Your task to perform on an android device: Open accessibility settings Image 0: 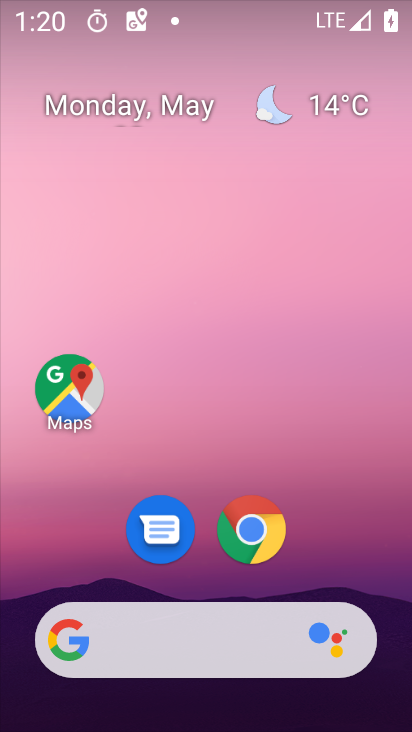
Step 0: drag from (388, 586) to (382, 234)
Your task to perform on an android device: Open accessibility settings Image 1: 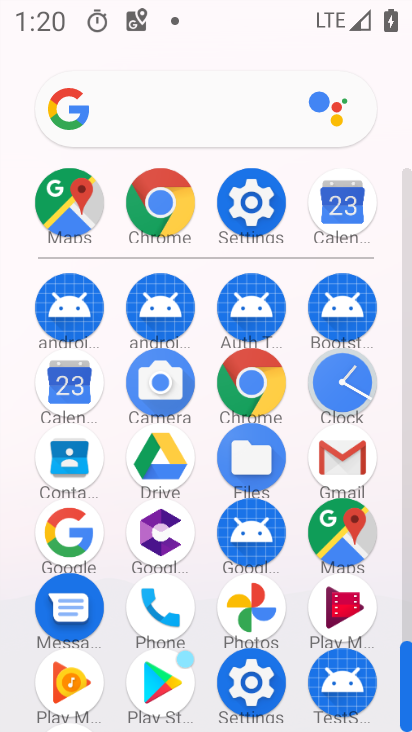
Step 1: click (249, 206)
Your task to perform on an android device: Open accessibility settings Image 2: 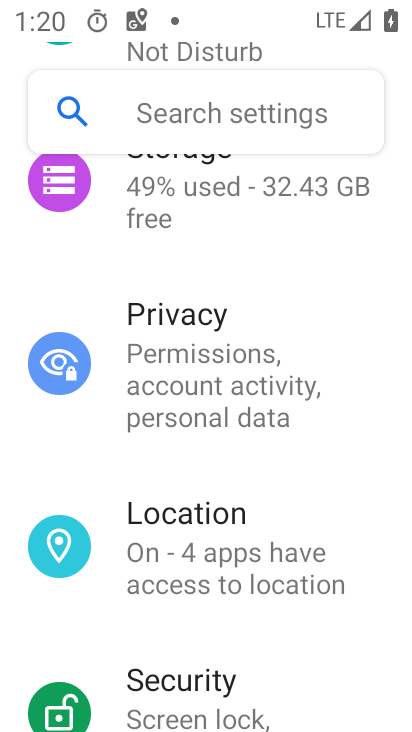
Step 2: drag from (359, 624) to (362, 481)
Your task to perform on an android device: Open accessibility settings Image 3: 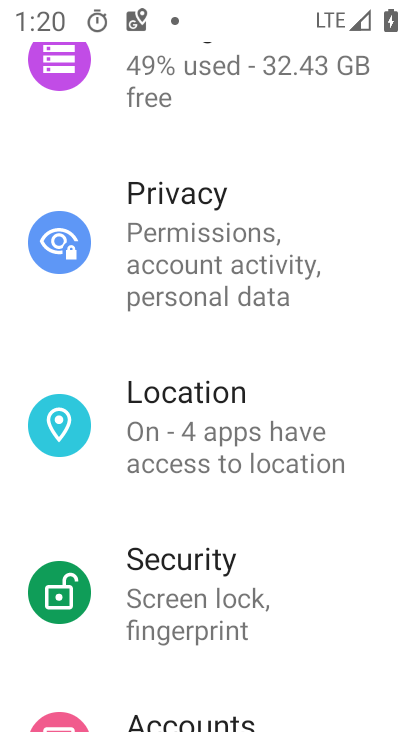
Step 3: drag from (353, 621) to (341, 409)
Your task to perform on an android device: Open accessibility settings Image 4: 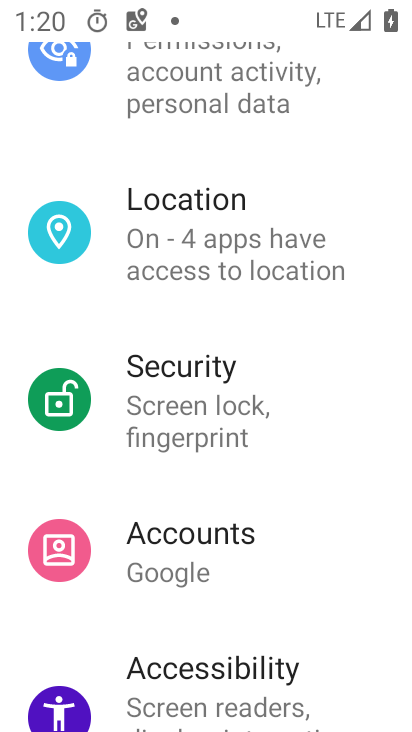
Step 4: drag from (355, 568) to (332, 444)
Your task to perform on an android device: Open accessibility settings Image 5: 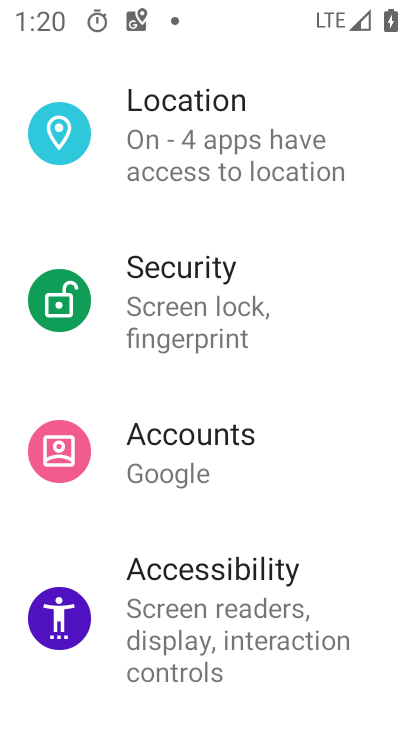
Step 5: drag from (317, 547) to (314, 392)
Your task to perform on an android device: Open accessibility settings Image 6: 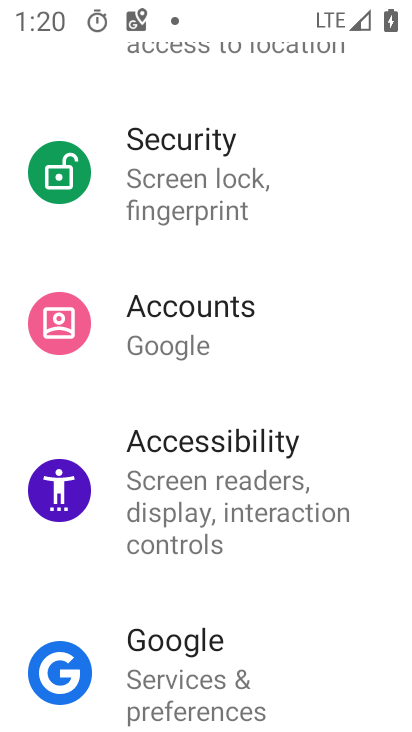
Step 6: drag from (332, 636) to (336, 390)
Your task to perform on an android device: Open accessibility settings Image 7: 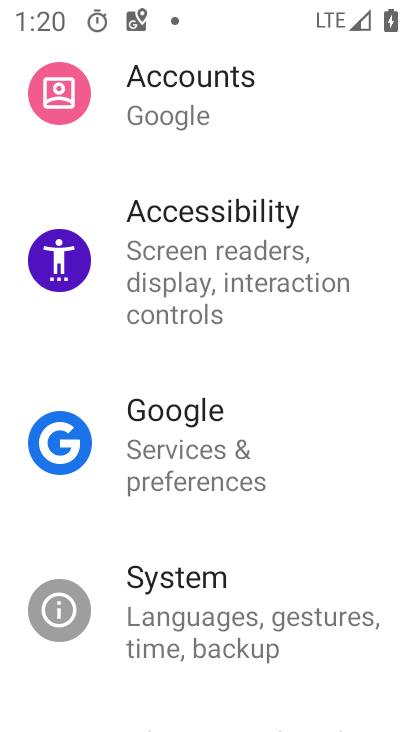
Step 7: drag from (322, 500) to (341, 346)
Your task to perform on an android device: Open accessibility settings Image 8: 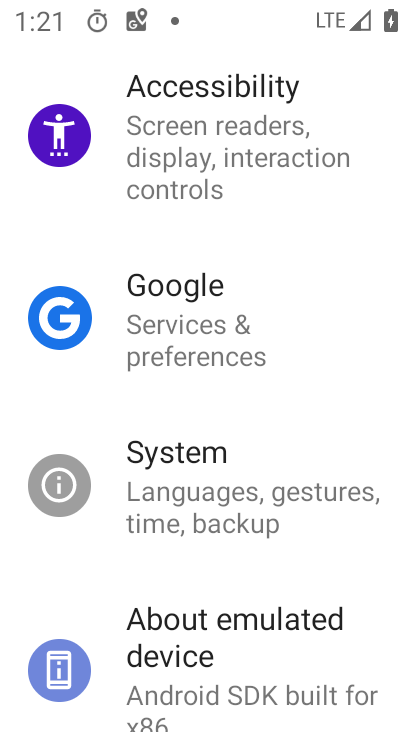
Step 8: drag from (357, 558) to (354, 328)
Your task to perform on an android device: Open accessibility settings Image 9: 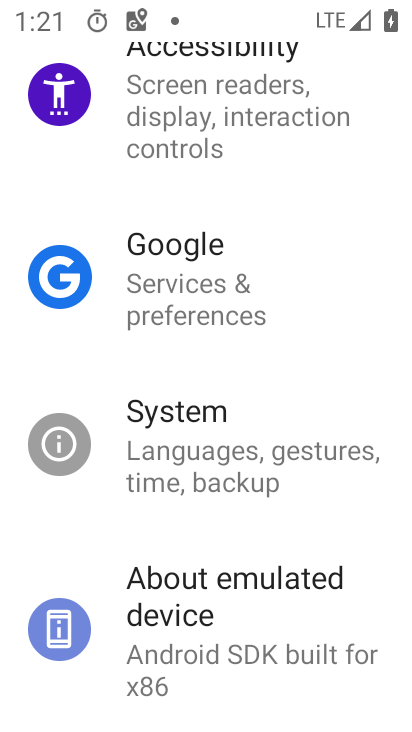
Step 9: drag from (355, 267) to (331, 421)
Your task to perform on an android device: Open accessibility settings Image 10: 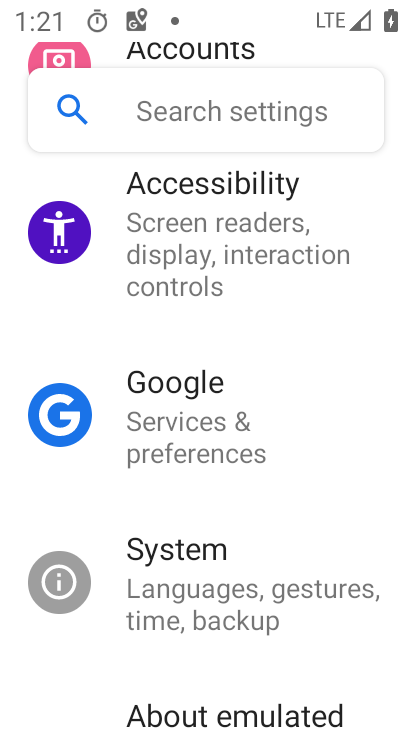
Step 10: drag from (337, 338) to (339, 472)
Your task to perform on an android device: Open accessibility settings Image 11: 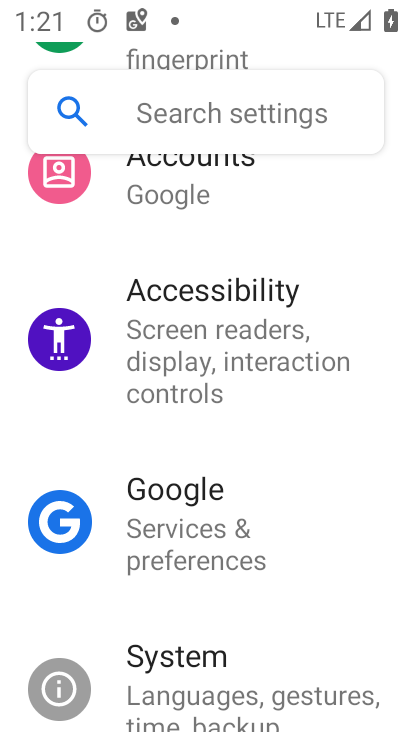
Step 11: drag from (340, 267) to (330, 414)
Your task to perform on an android device: Open accessibility settings Image 12: 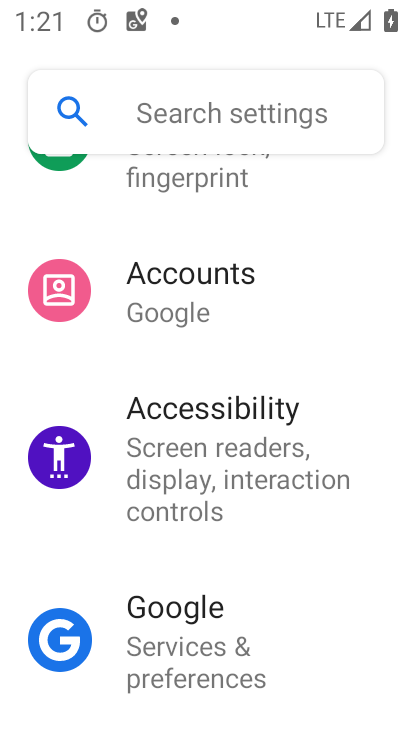
Step 12: drag from (332, 259) to (325, 377)
Your task to perform on an android device: Open accessibility settings Image 13: 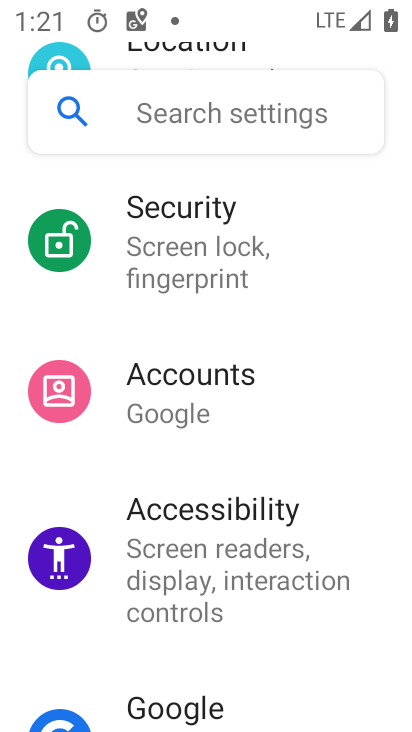
Step 13: drag from (337, 239) to (339, 338)
Your task to perform on an android device: Open accessibility settings Image 14: 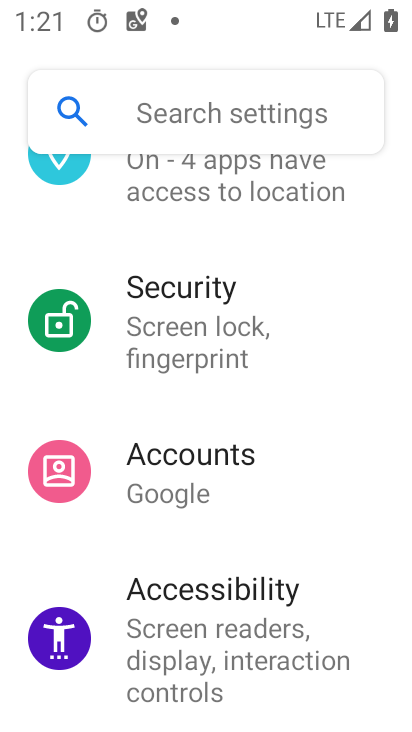
Step 14: drag from (331, 459) to (332, 354)
Your task to perform on an android device: Open accessibility settings Image 15: 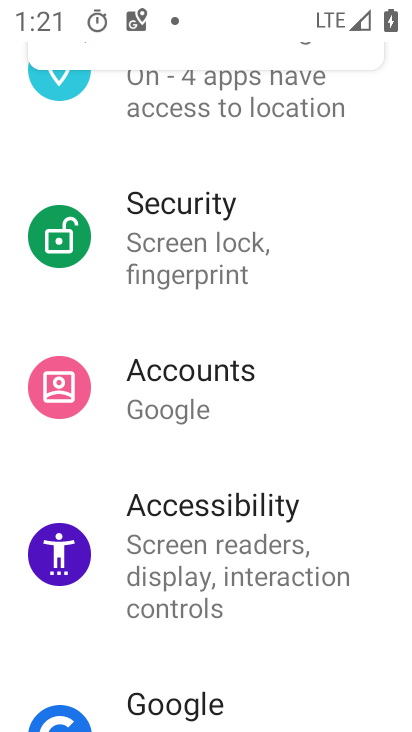
Step 15: click (295, 533)
Your task to perform on an android device: Open accessibility settings Image 16: 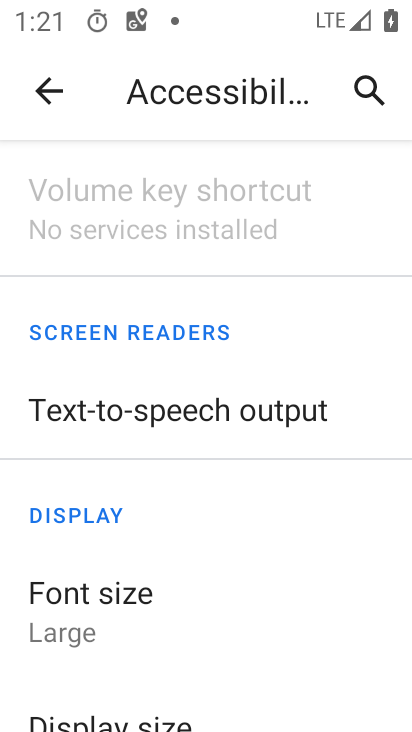
Step 16: task complete